Your task to perform on an android device: turn pop-ups on in chrome Image 0: 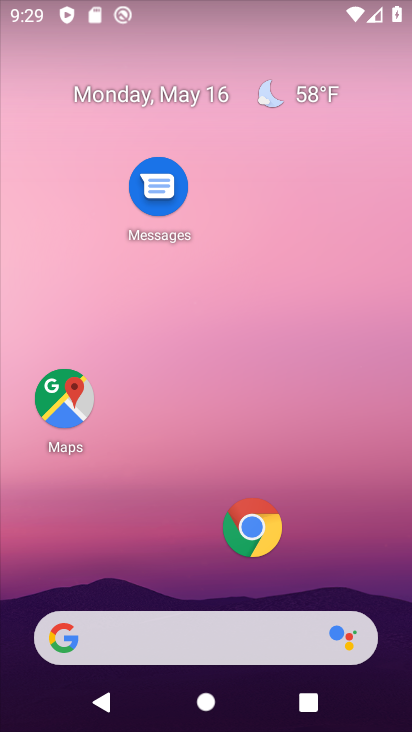
Step 0: click (255, 528)
Your task to perform on an android device: turn pop-ups on in chrome Image 1: 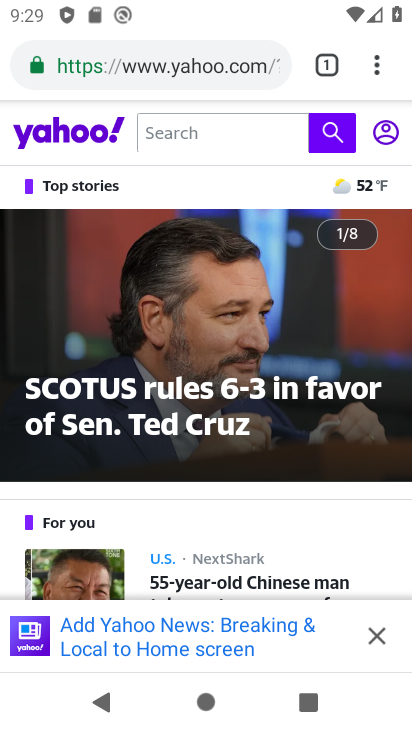
Step 1: click (372, 66)
Your task to perform on an android device: turn pop-ups on in chrome Image 2: 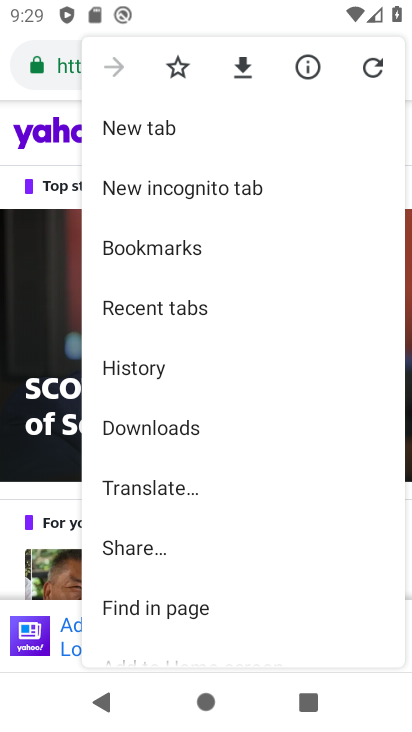
Step 2: drag from (236, 536) to (219, 126)
Your task to perform on an android device: turn pop-ups on in chrome Image 3: 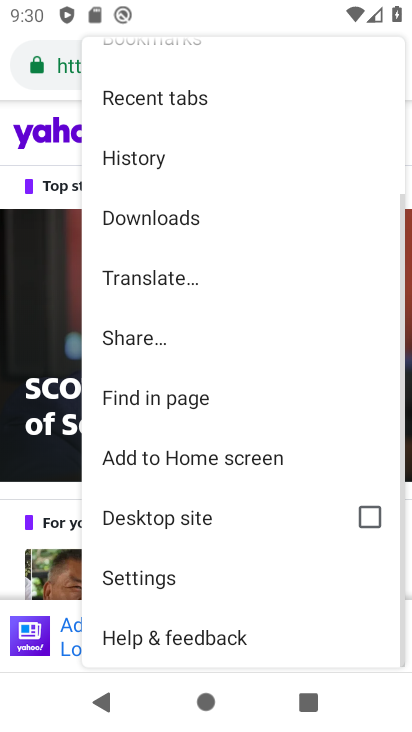
Step 3: click (177, 573)
Your task to perform on an android device: turn pop-ups on in chrome Image 4: 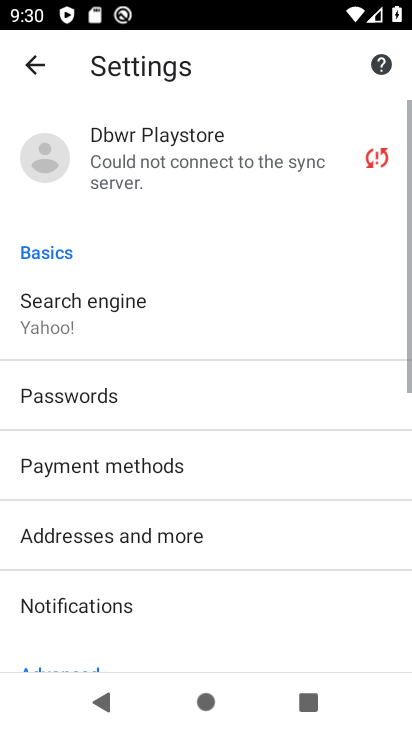
Step 4: drag from (173, 546) to (130, 235)
Your task to perform on an android device: turn pop-ups on in chrome Image 5: 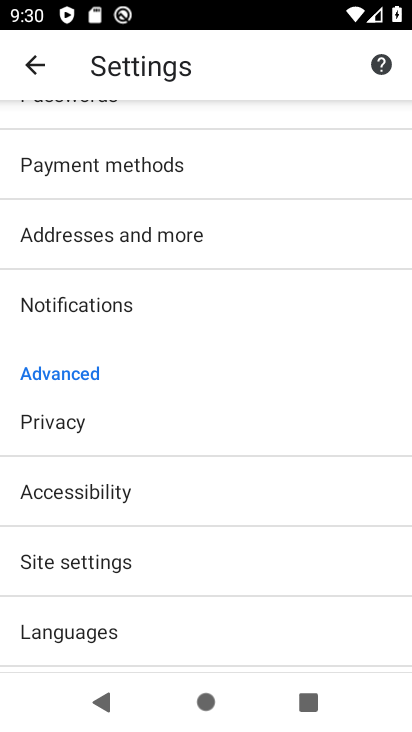
Step 5: drag from (152, 560) to (138, 399)
Your task to perform on an android device: turn pop-ups on in chrome Image 6: 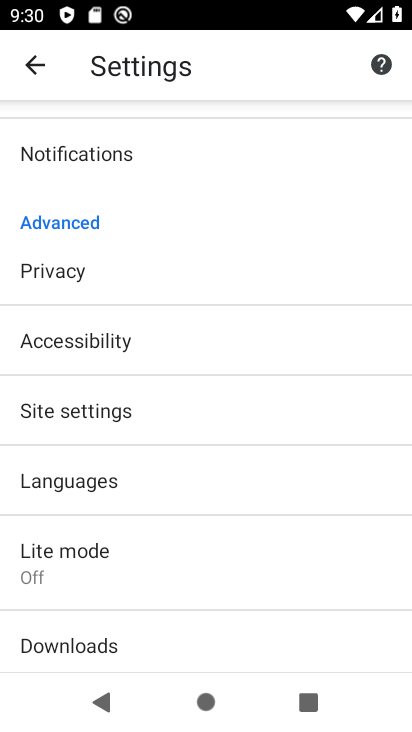
Step 6: click (91, 412)
Your task to perform on an android device: turn pop-ups on in chrome Image 7: 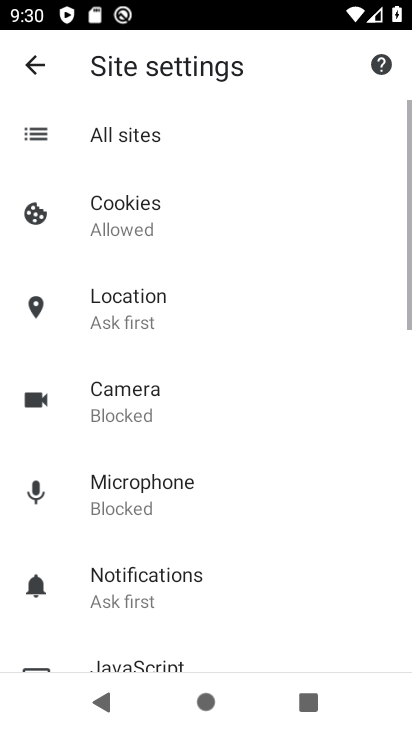
Step 7: drag from (230, 499) to (271, 157)
Your task to perform on an android device: turn pop-ups on in chrome Image 8: 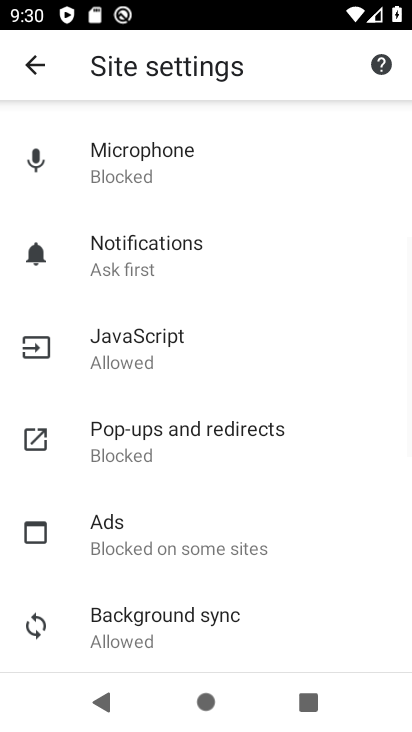
Step 8: click (128, 437)
Your task to perform on an android device: turn pop-ups on in chrome Image 9: 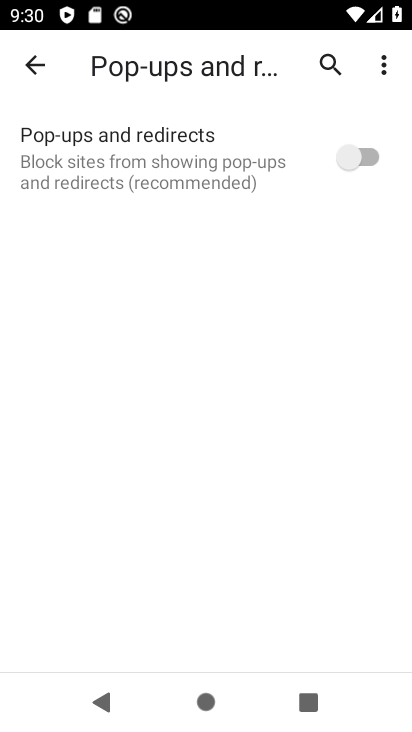
Step 9: click (355, 149)
Your task to perform on an android device: turn pop-ups on in chrome Image 10: 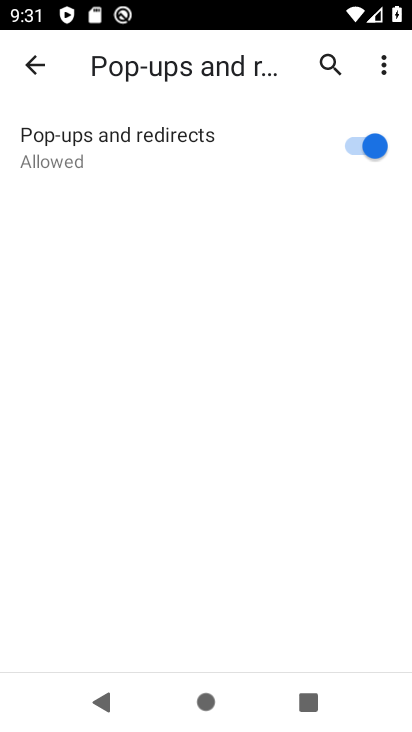
Step 10: task complete